Your task to perform on an android device: Open Chrome and go to settings Image 0: 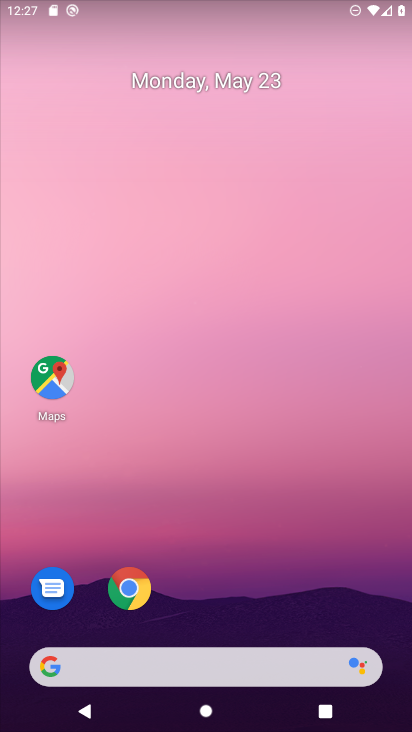
Step 0: click (126, 594)
Your task to perform on an android device: Open Chrome and go to settings Image 1: 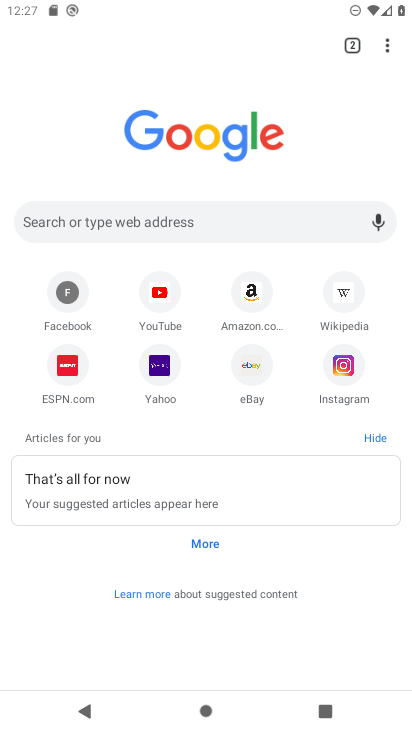
Step 1: click (383, 49)
Your task to perform on an android device: Open Chrome and go to settings Image 2: 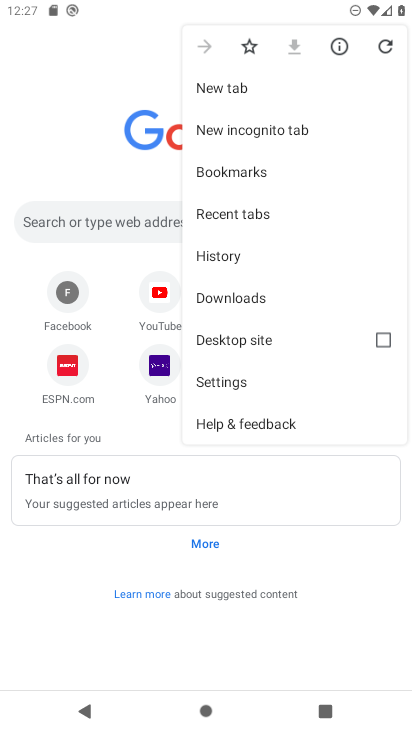
Step 2: click (231, 380)
Your task to perform on an android device: Open Chrome and go to settings Image 3: 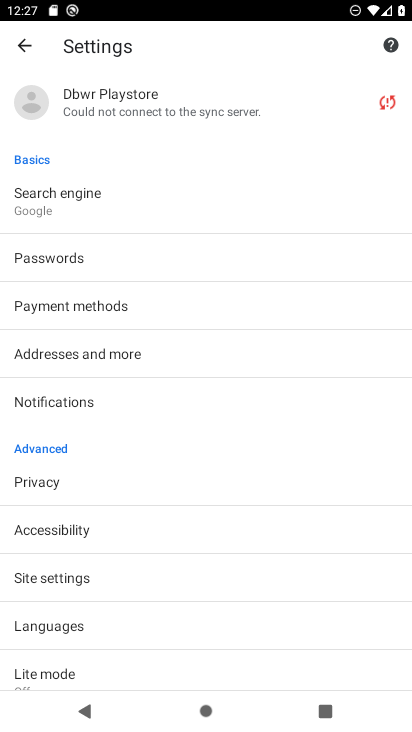
Step 3: task complete